Your task to perform on an android device: stop showing notifications on the lock screen Image 0: 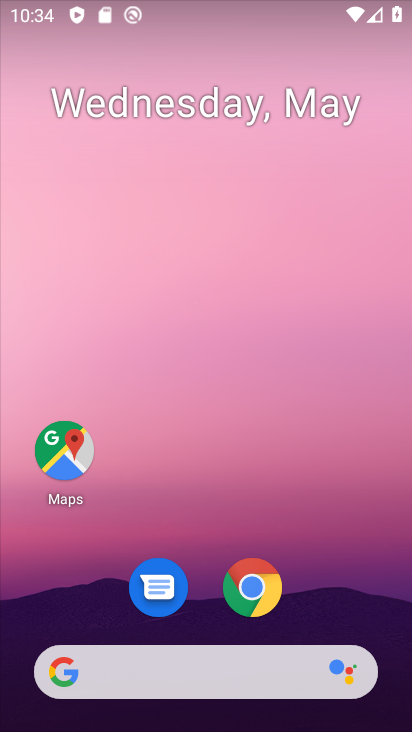
Step 0: drag from (182, 603) to (272, 93)
Your task to perform on an android device: stop showing notifications on the lock screen Image 1: 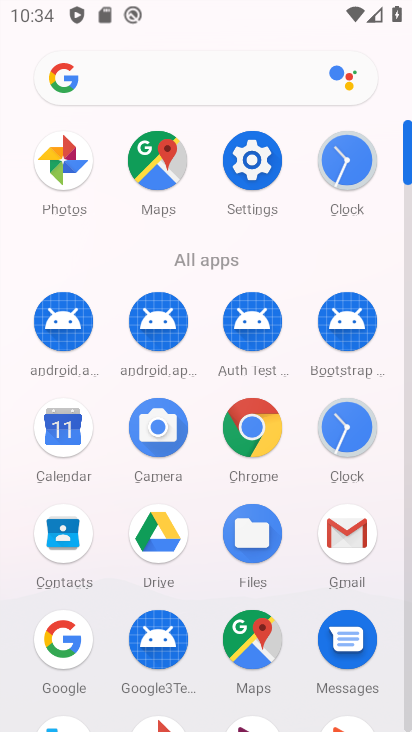
Step 1: click (258, 165)
Your task to perform on an android device: stop showing notifications on the lock screen Image 2: 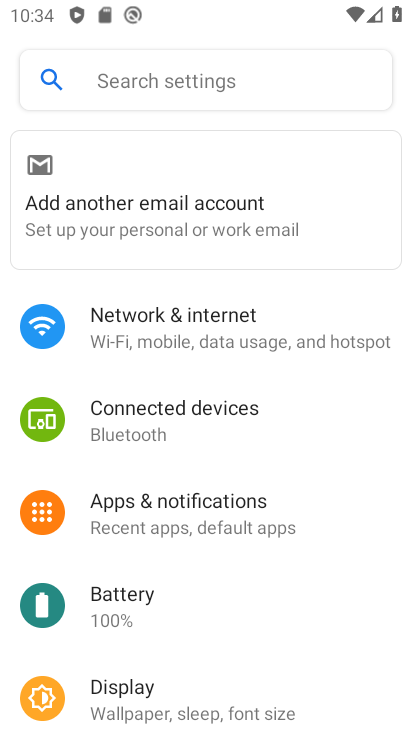
Step 2: click (158, 531)
Your task to perform on an android device: stop showing notifications on the lock screen Image 3: 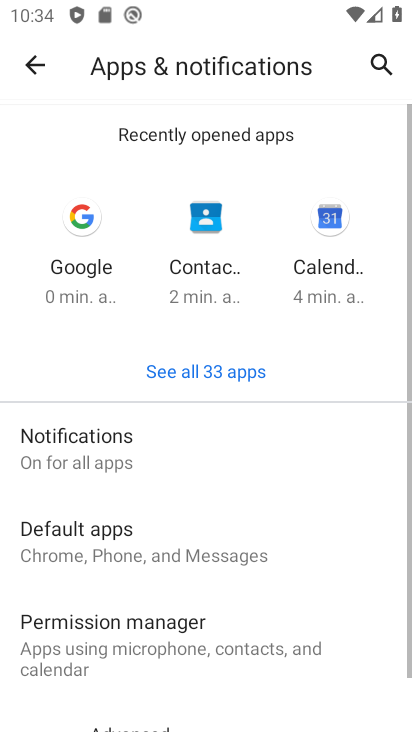
Step 3: drag from (181, 657) to (280, 221)
Your task to perform on an android device: stop showing notifications on the lock screen Image 4: 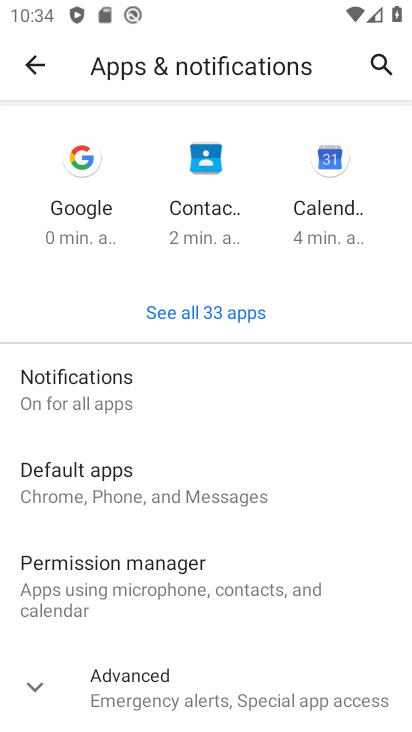
Step 4: click (142, 384)
Your task to perform on an android device: stop showing notifications on the lock screen Image 5: 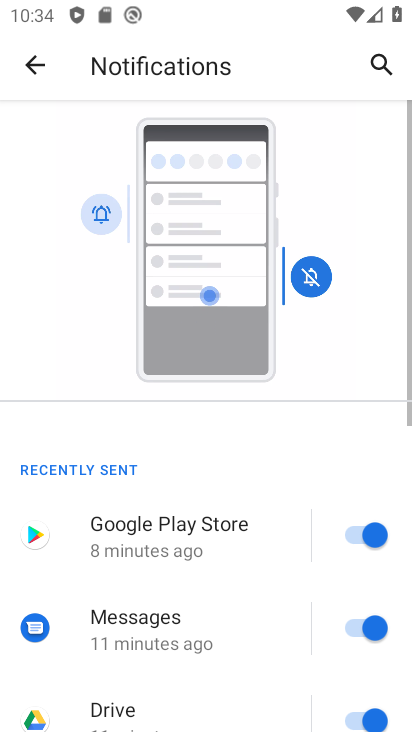
Step 5: drag from (147, 654) to (286, 144)
Your task to perform on an android device: stop showing notifications on the lock screen Image 6: 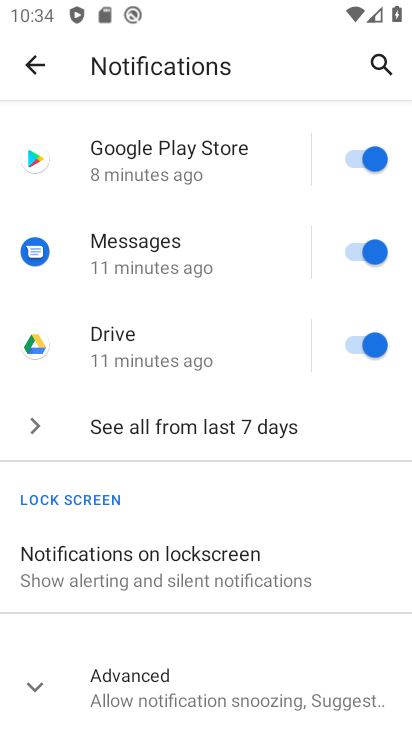
Step 6: click (191, 572)
Your task to perform on an android device: stop showing notifications on the lock screen Image 7: 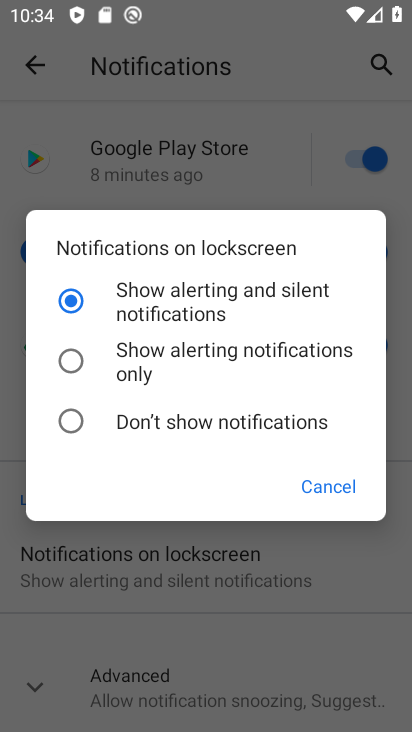
Step 7: click (81, 418)
Your task to perform on an android device: stop showing notifications on the lock screen Image 8: 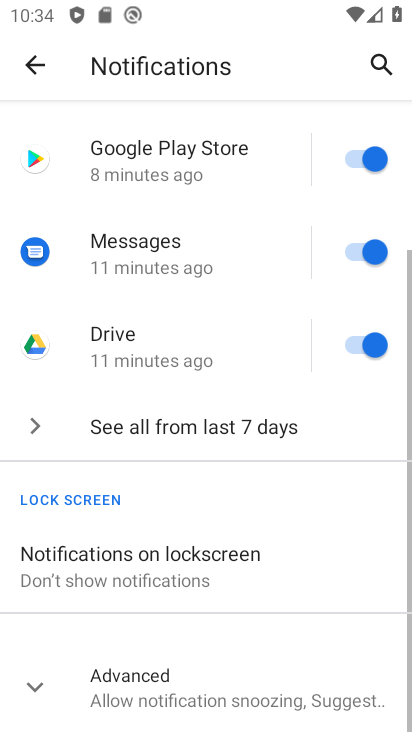
Step 8: task complete